Your task to perform on an android device: Is it going to rain this weekend? Image 0: 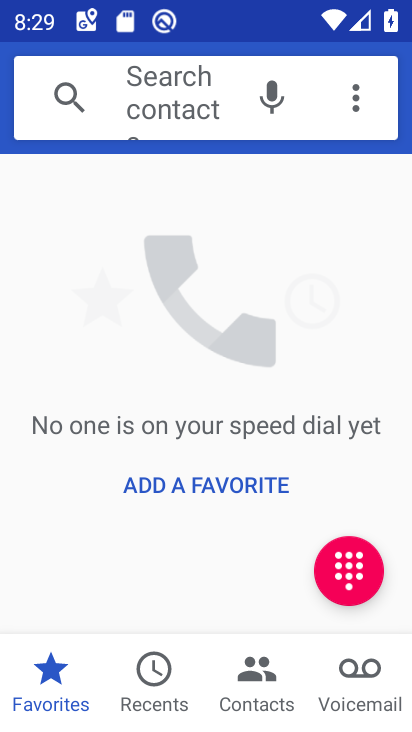
Step 0: press home button
Your task to perform on an android device: Is it going to rain this weekend? Image 1: 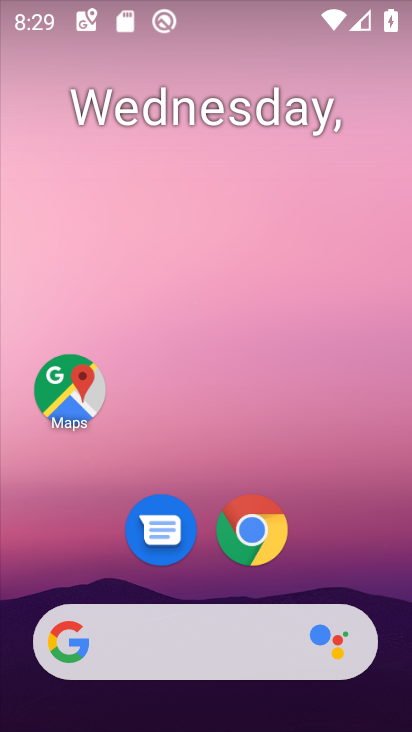
Step 1: drag from (389, 633) to (412, 529)
Your task to perform on an android device: Is it going to rain this weekend? Image 2: 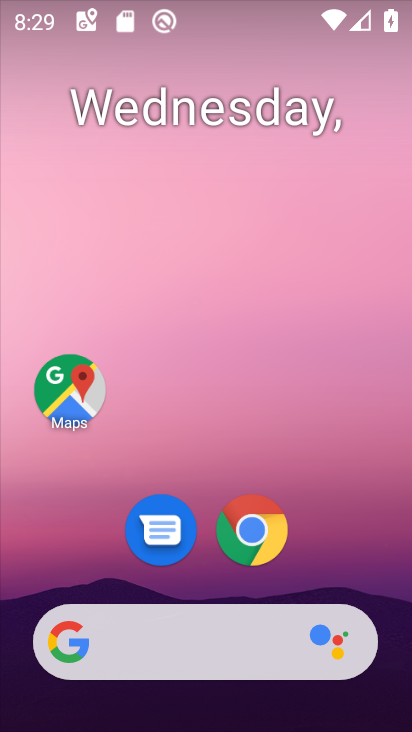
Step 2: click (201, 664)
Your task to perform on an android device: Is it going to rain this weekend? Image 3: 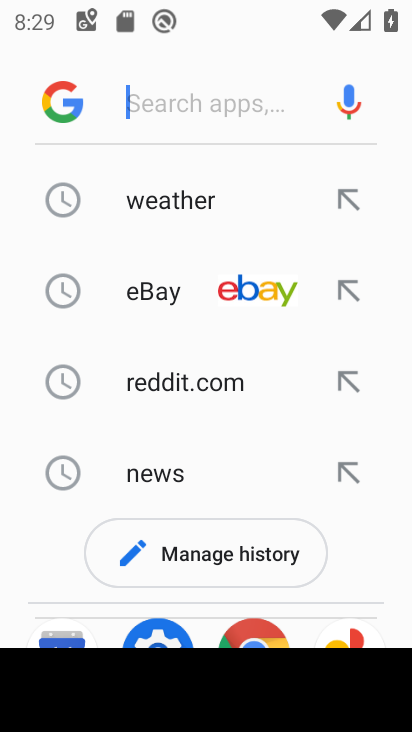
Step 3: type "rain this weekend"
Your task to perform on an android device: Is it going to rain this weekend? Image 4: 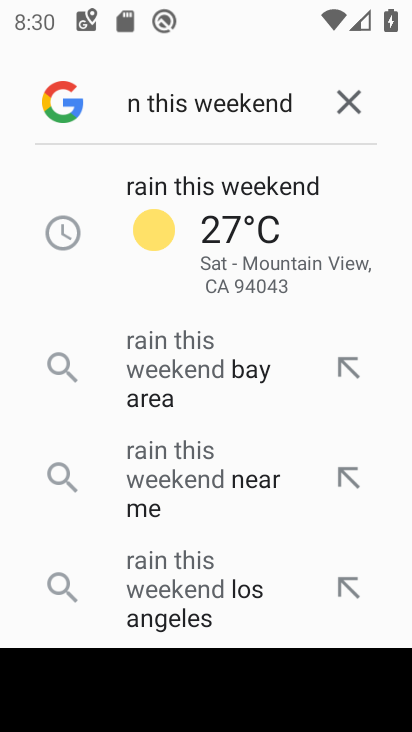
Step 4: click (285, 222)
Your task to perform on an android device: Is it going to rain this weekend? Image 5: 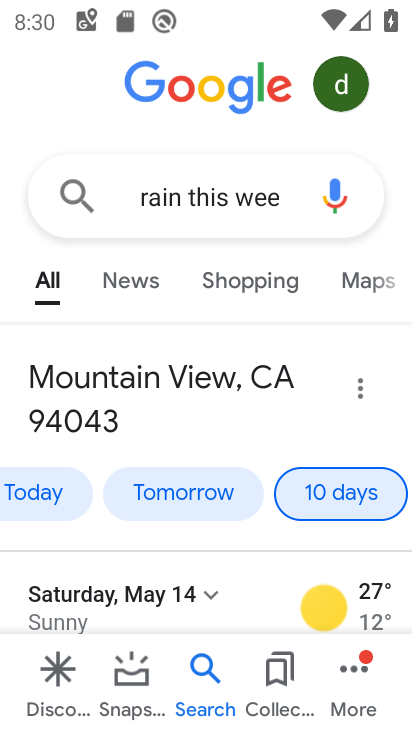
Step 5: task complete